Your task to perform on an android device: Check the news Image 0: 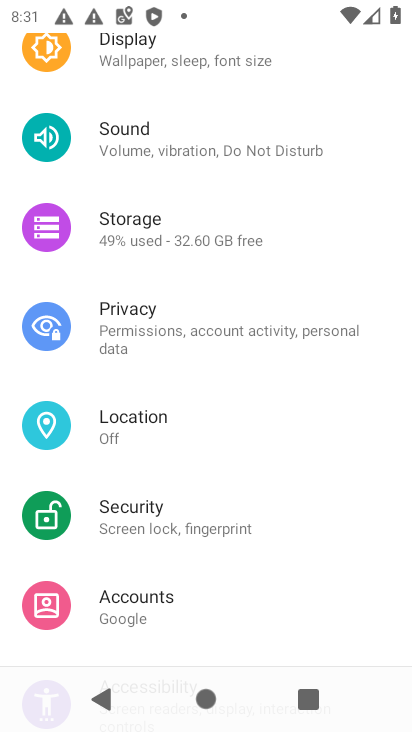
Step 0: press home button
Your task to perform on an android device: Check the news Image 1: 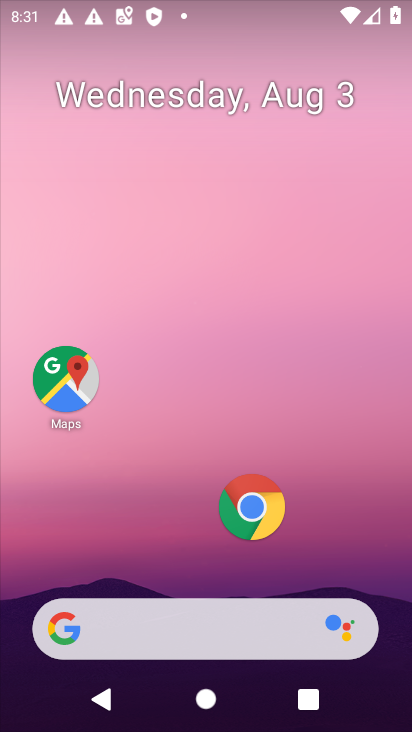
Step 1: drag from (191, 555) to (146, 17)
Your task to perform on an android device: Check the news Image 2: 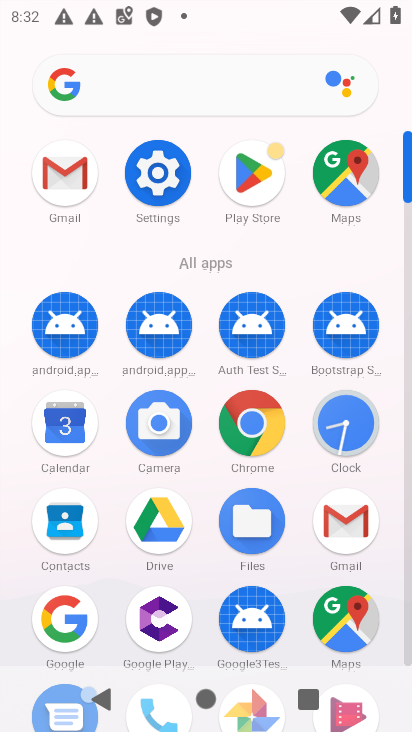
Step 2: click (58, 630)
Your task to perform on an android device: Check the news Image 3: 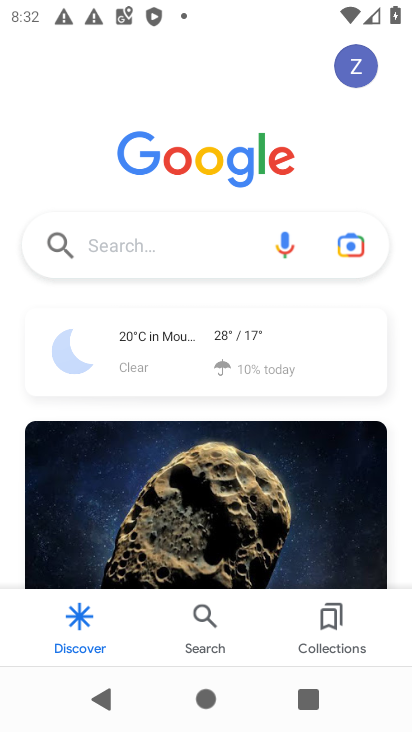
Step 3: click (143, 253)
Your task to perform on an android device: Check the news Image 4: 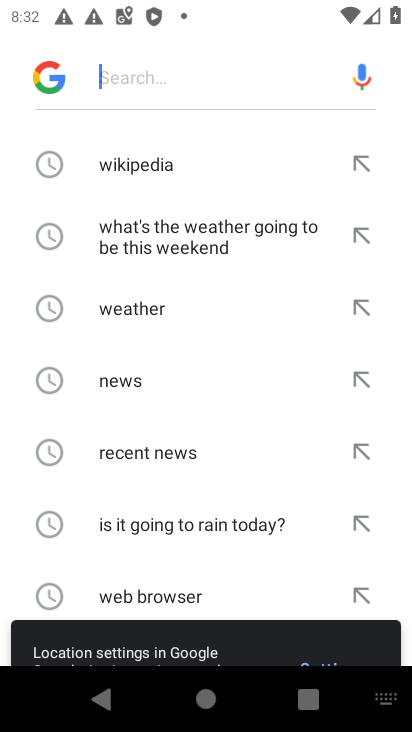
Step 4: click (122, 379)
Your task to perform on an android device: Check the news Image 5: 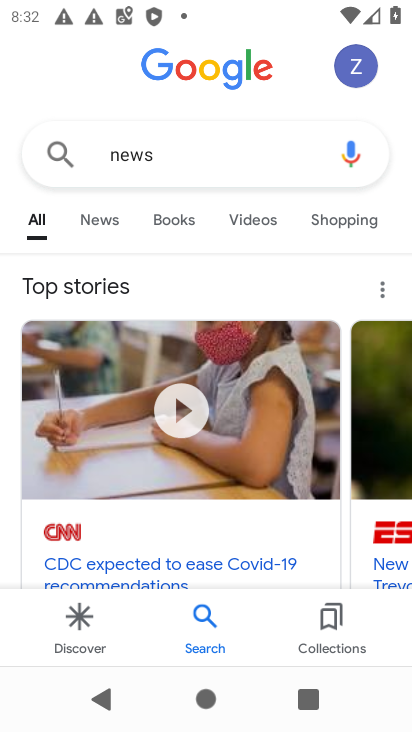
Step 5: task complete